Your task to perform on an android device: delete location history Image 0: 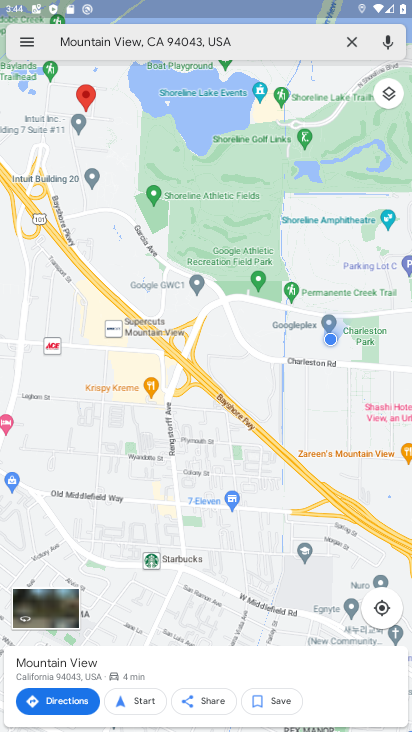
Step 0: press back button
Your task to perform on an android device: delete location history Image 1: 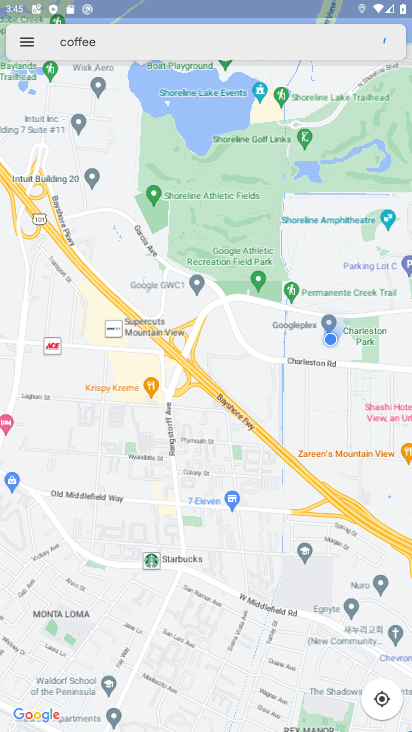
Step 1: press back button
Your task to perform on an android device: delete location history Image 2: 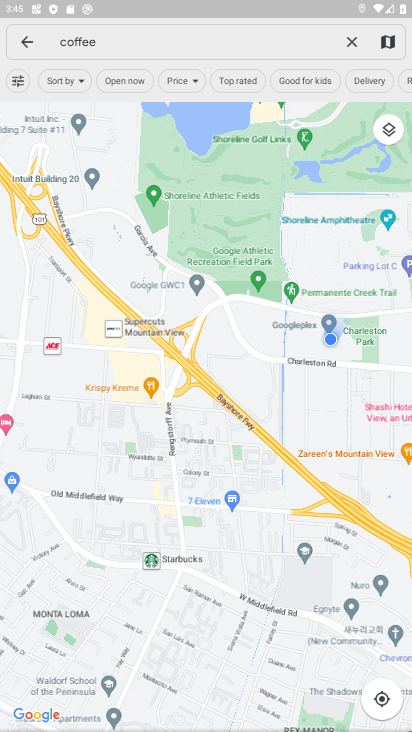
Step 2: press home button
Your task to perform on an android device: delete location history Image 3: 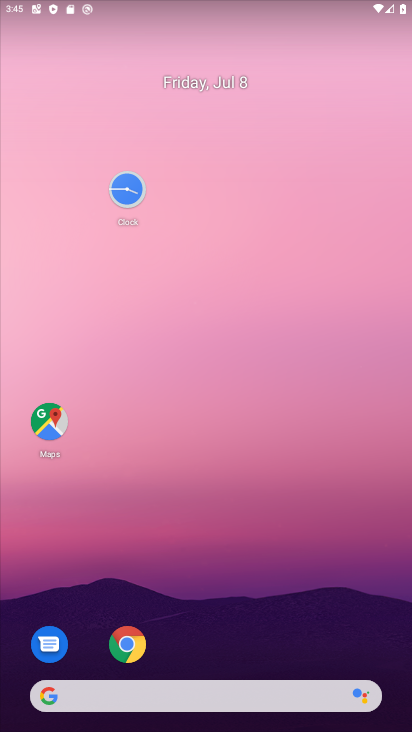
Step 3: drag from (217, 616) to (165, 321)
Your task to perform on an android device: delete location history Image 4: 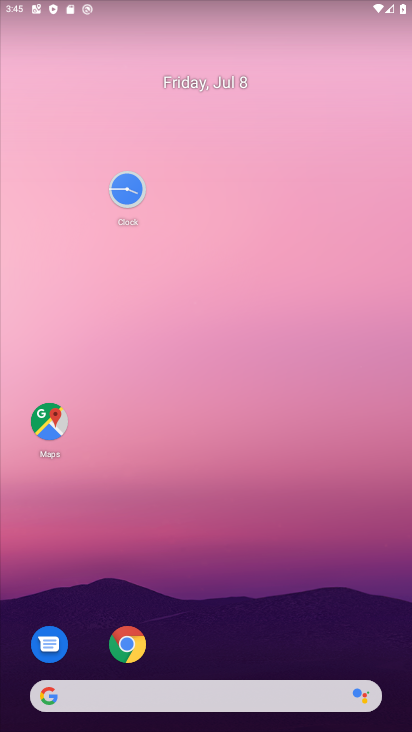
Step 4: drag from (219, 370) to (180, 164)
Your task to perform on an android device: delete location history Image 5: 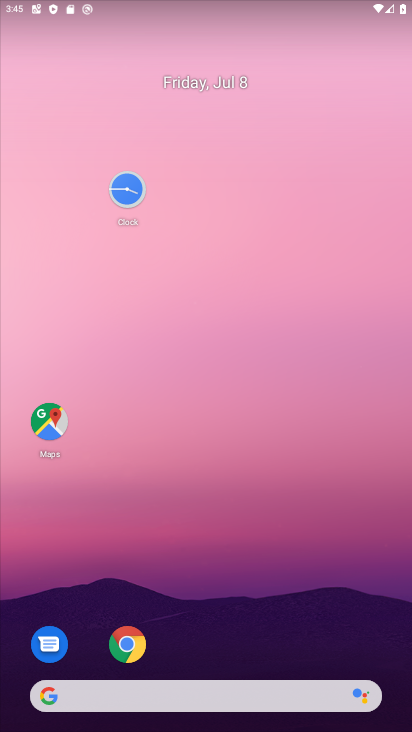
Step 5: drag from (214, 602) to (128, 82)
Your task to perform on an android device: delete location history Image 6: 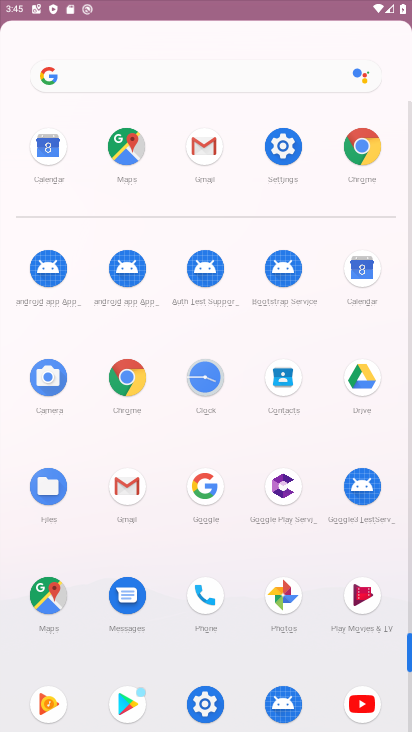
Step 6: drag from (139, 176) to (92, 0)
Your task to perform on an android device: delete location history Image 7: 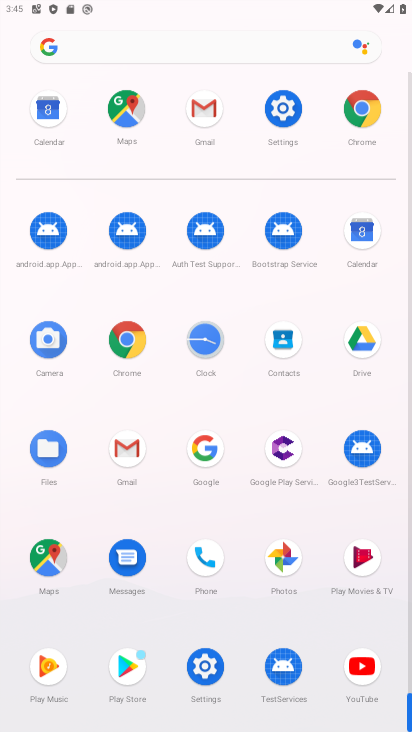
Step 7: drag from (294, 409) to (156, 49)
Your task to perform on an android device: delete location history Image 8: 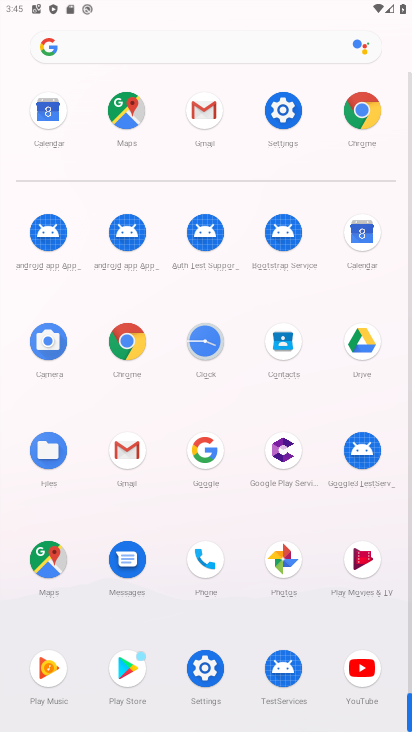
Step 8: click (276, 111)
Your task to perform on an android device: delete location history Image 9: 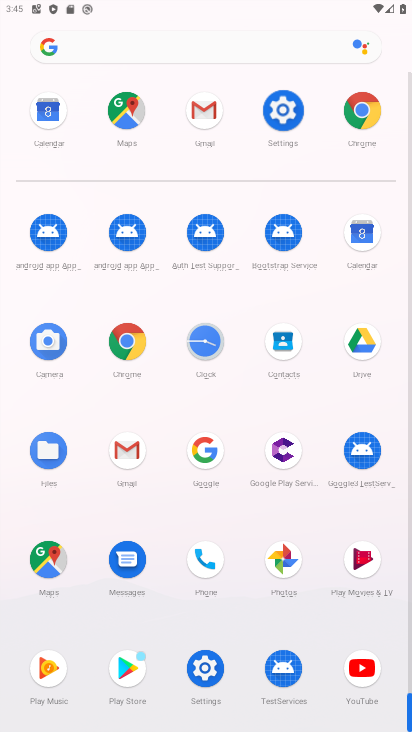
Step 9: click (282, 115)
Your task to perform on an android device: delete location history Image 10: 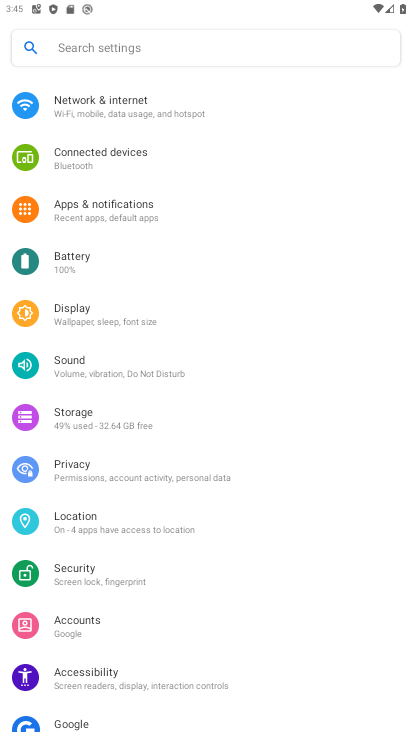
Step 10: click (283, 122)
Your task to perform on an android device: delete location history Image 11: 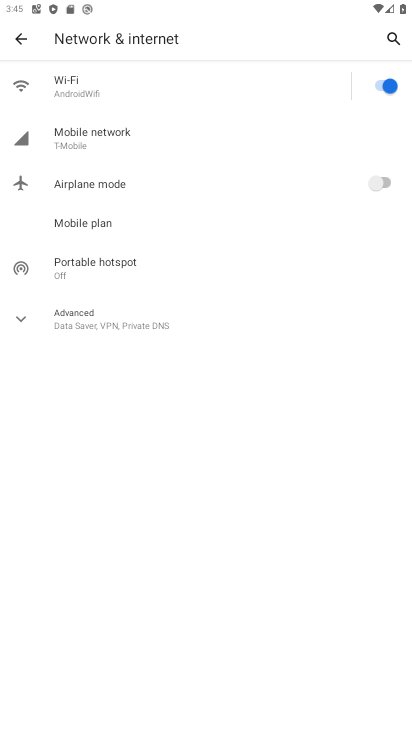
Step 11: click (20, 41)
Your task to perform on an android device: delete location history Image 12: 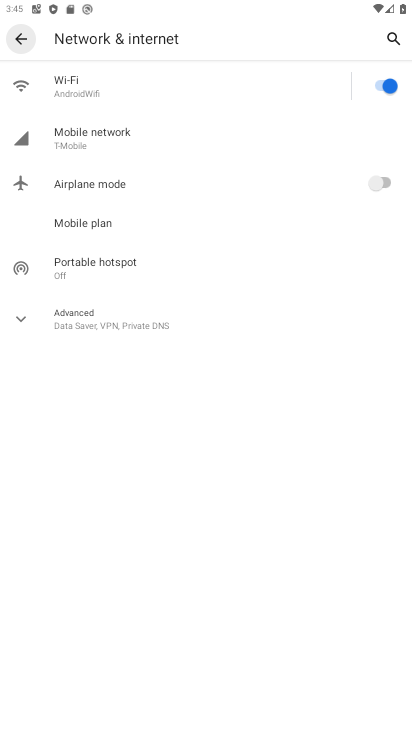
Step 12: click (9, 43)
Your task to perform on an android device: delete location history Image 13: 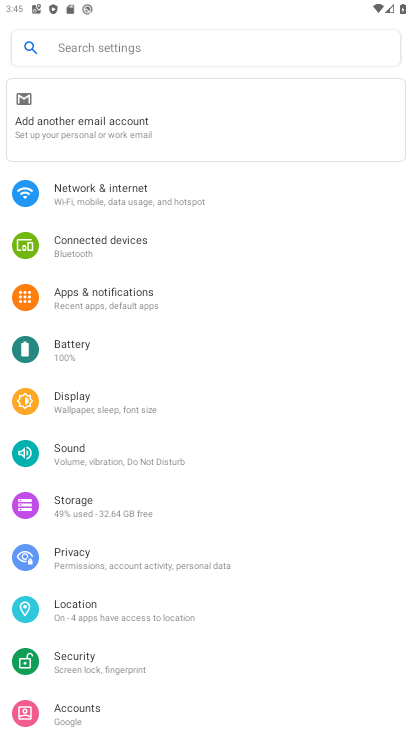
Step 13: click (89, 616)
Your task to perform on an android device: delete location history Image 14: 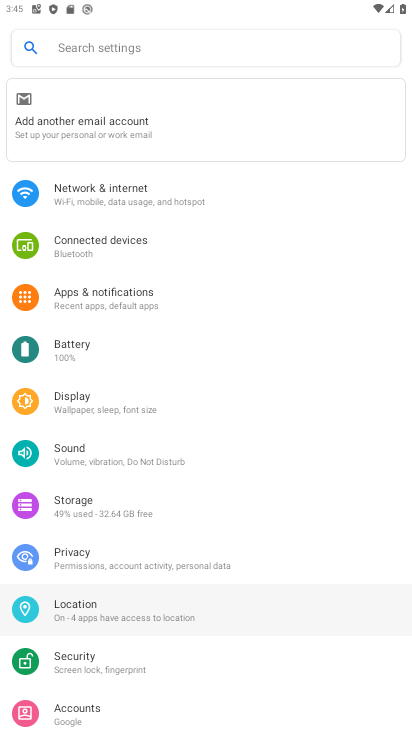
Step 14: click (82, 613)
Your task to perform on an android device: delete location history Image 15: 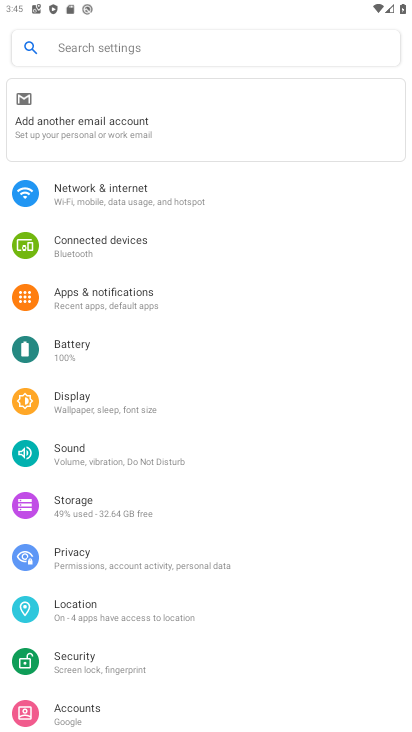
Step 15: click (80, 615)
Your task to perform on an android device: delete location history Image 16: 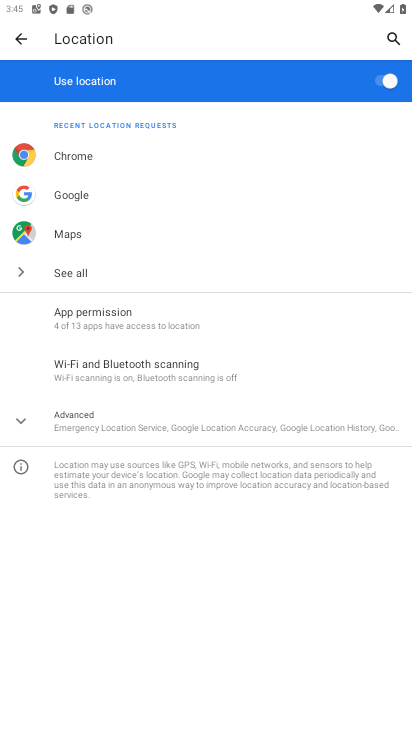
Step 16: click (81, 419)
Your task to perform on an android device: delete location history Image 17: 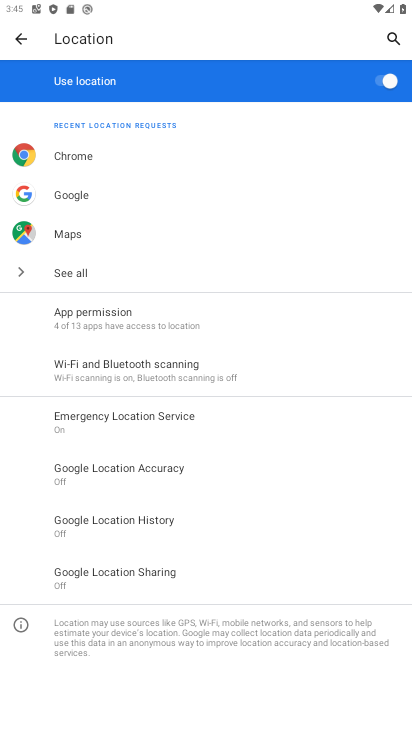
Step 17: click (111, 513)
Your task to perform on an android device: delete location history Image 18: 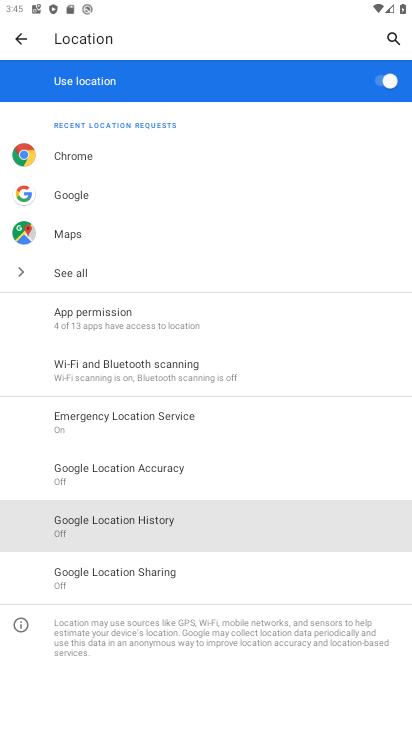
Step 18: click (111, 514)
Your task to perform on an android device: delete location history Image 19: 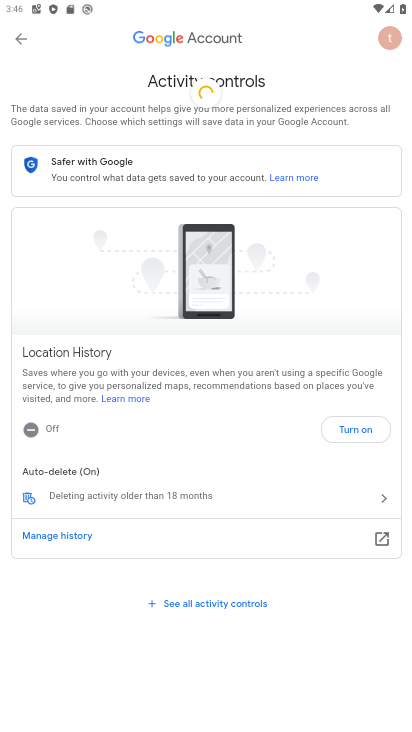
Step 19: task complete